Your task to perform on an android device: turn on showing notifications on the lock screen Image 0: 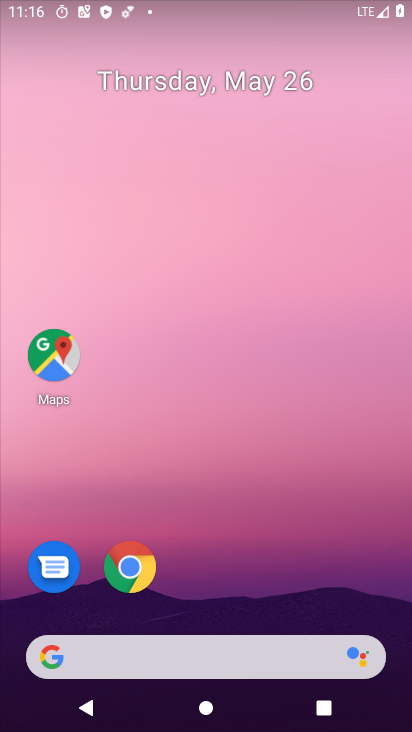
Step 0: drag from (274, 703) to (282, 11)
Your task to perform on an android device: turn on showing notifications on the lock screen Image 1: 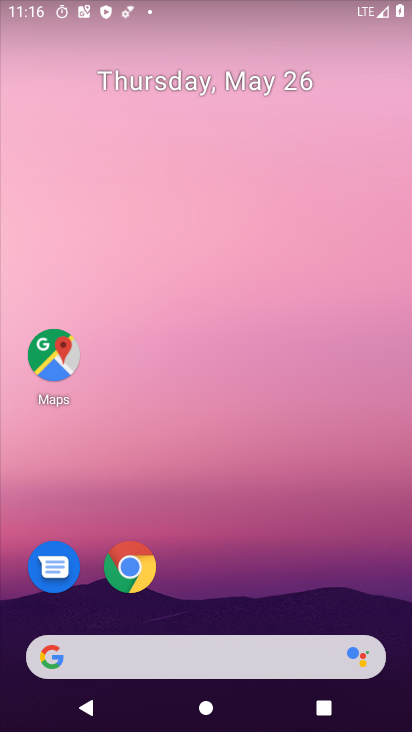
Step 1: drag from (226, 665) to (291, 29)
Your task to perform on an android device: turn on showing notifications on the lock screen Image 2: 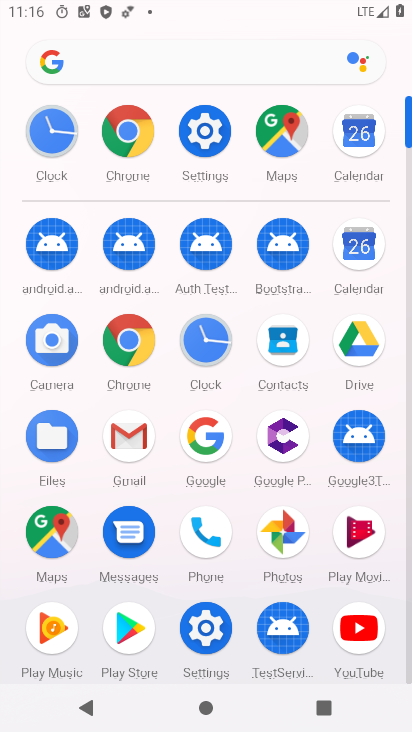
Step 2: click (206, 131)
Your task to perform on an android device: turn on showing notifications on the lock screen Image 3: 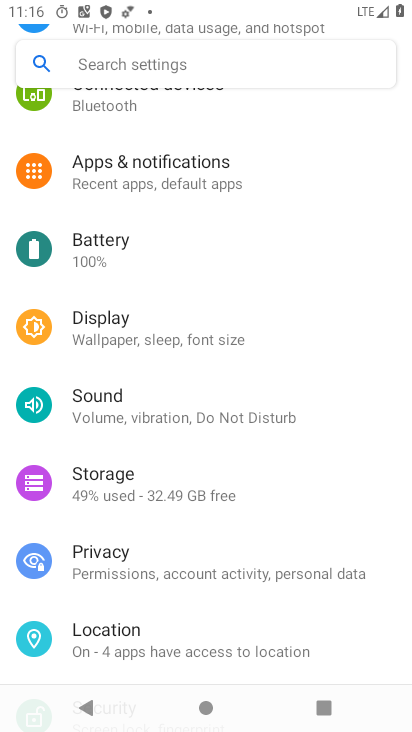
Step 3: click (194, 175)
Your task to perform on an android device: turn on showing notifications on the lock screen Image 4: 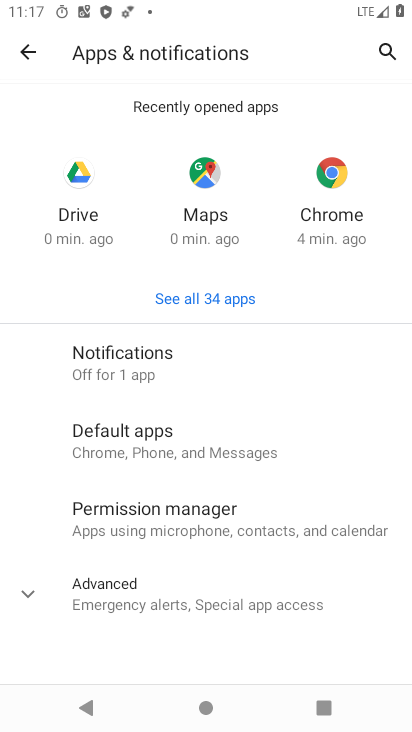
Step 4: click (192, 366)
Your task to perform on an android device: turn on showing notifications on the lock screen Image 5: 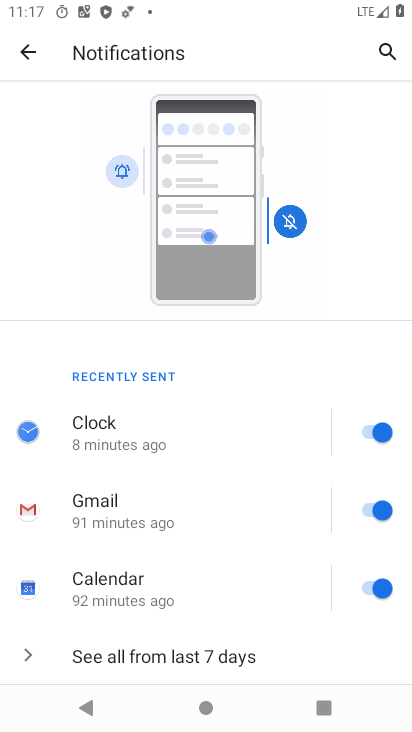
Step 5: drag from (224, 576) to (186, 215)
Your task to perform on an android device: turn on showing notifications on the lock screen Image 6: 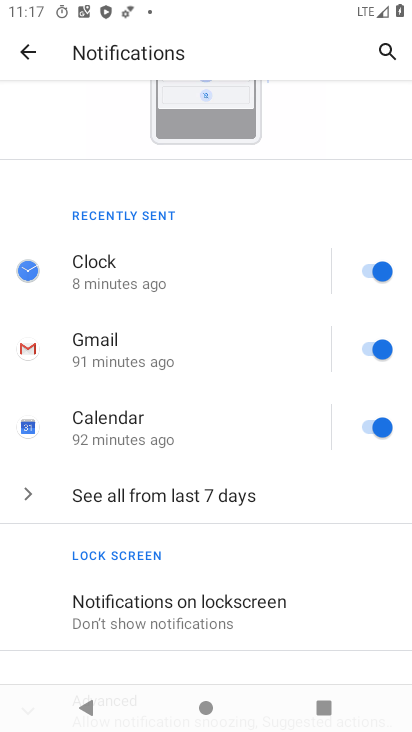
Step 6: click (177, 612)
Your task to perform on an android device: turn on showing notifications on the lock screen Image 7: 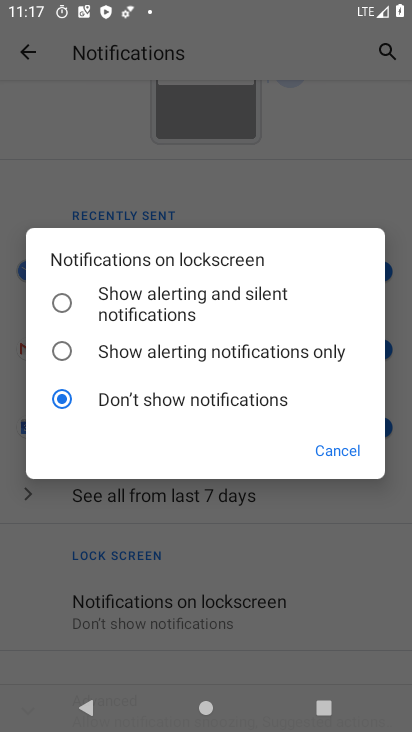
Step 7: click (177, 306)
Your task to perform on an android device: turn on showing notifications on the lock screen Image 8: 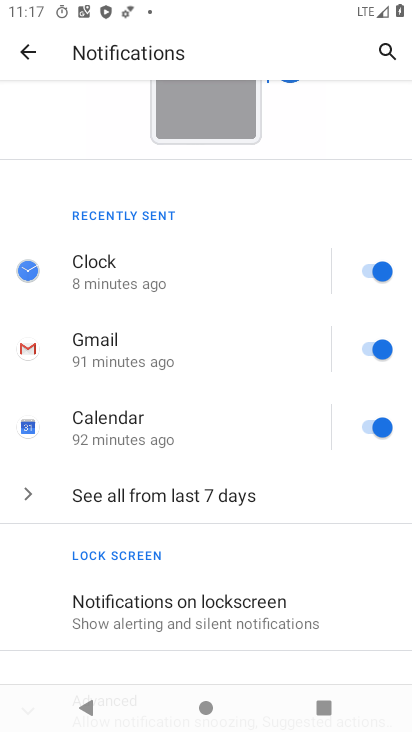
Step 8: task complete